Your task to perform on an android device: Go to Android settings Image 0: 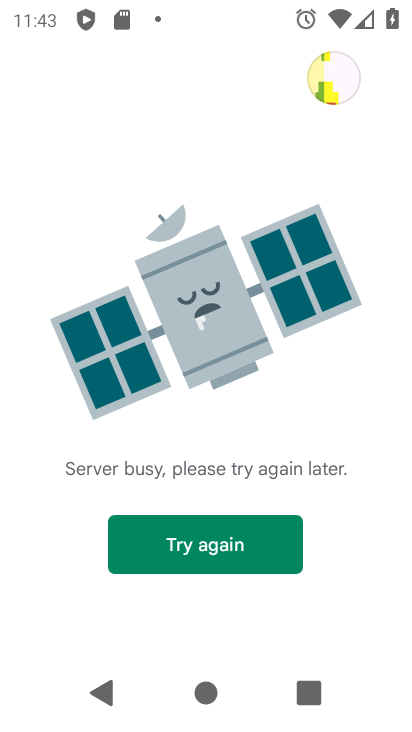
Step 0: press home button
Your task to perform on an android device: Go to Android settings Image 1: 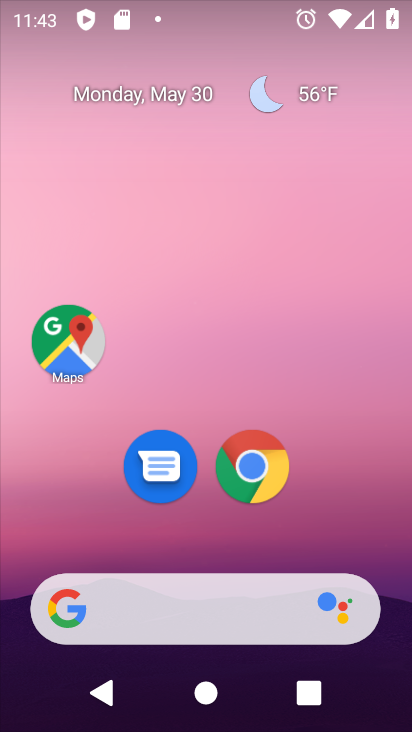
Step 1: drag from (278, 536) to (161, 6)
Your task to perform on an android device: Go to Android settings Image 2: 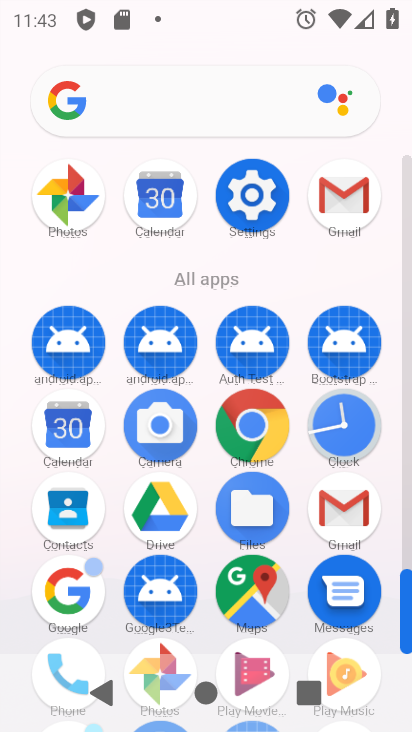
Step 2: click (268, 225)
Your task to perform on an android device: Go to Android settings Image 3: 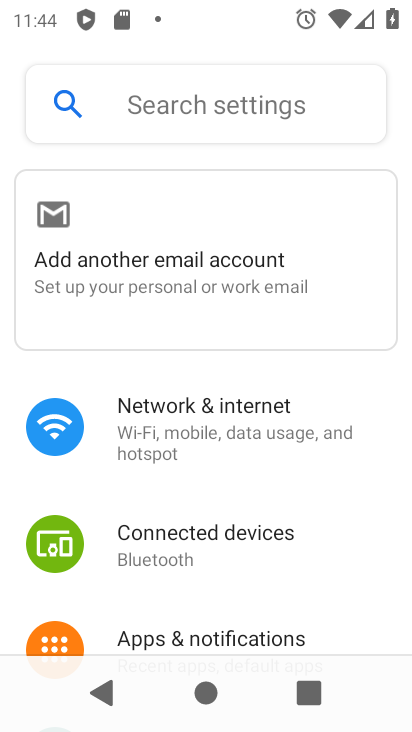
Step 3: task complete